Your task to perform on an android device: turn off notifications settings in the gmail app Image 0: 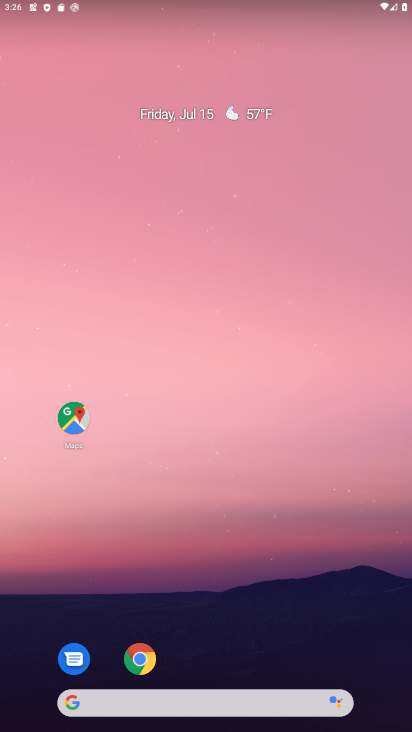
Step 0: drag from (17, 691) to (181, 216)
Your task to perform on an android device: turn off notifications settings in the gmail app Image 1: 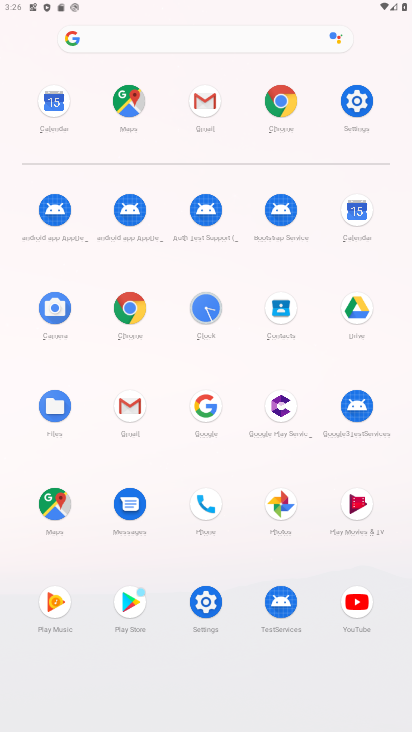
Step 1: click (116, 413)
Your task to perform on an android device: turn off notifications settings in the gmail app Image 2: 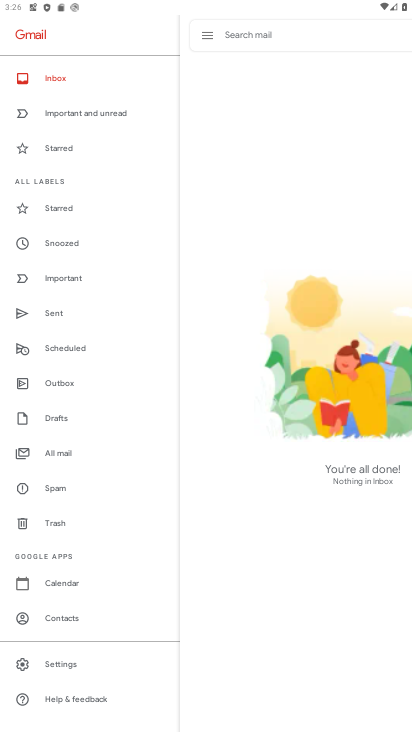
Step 2: click (41, 671)
Your task to perform on an android device: turn off notifications settings in the gmail app Image 3: 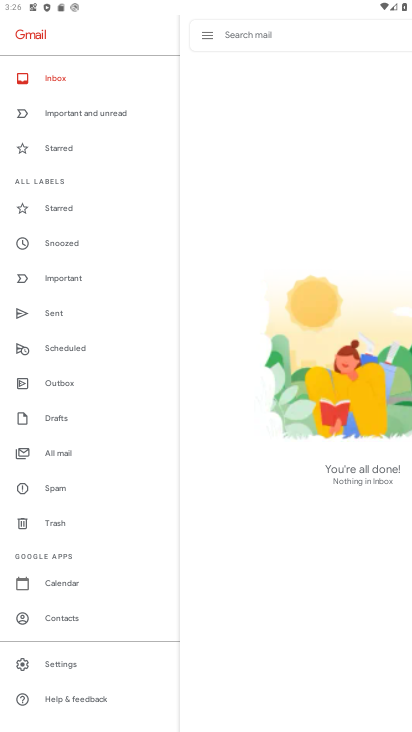
Step 3: click (42, 668)
Your task to perform on an android device: turn off notifications settings in the gmail app Image 4: 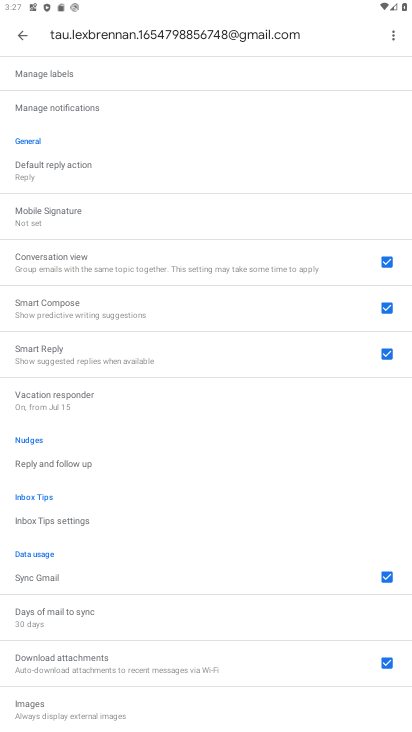
Step 4: click (46, 112)
Your task to perform on an android device: turn off notifications settings in the gmail app Image 5: 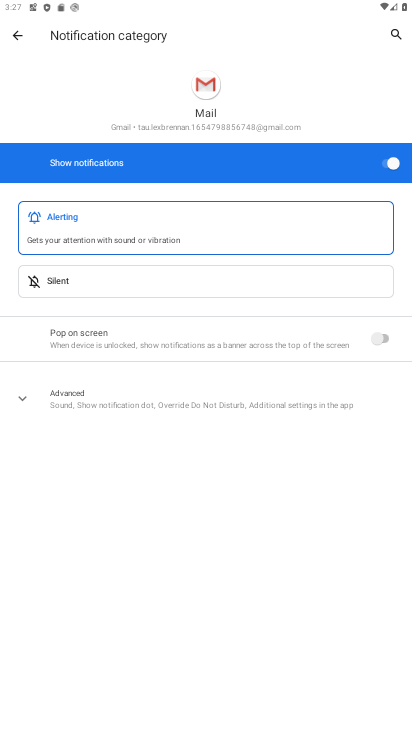
Step 5: click (380, 172)
Your task to perform on an android device: turn off notifications settings in the gmail app Image 6: 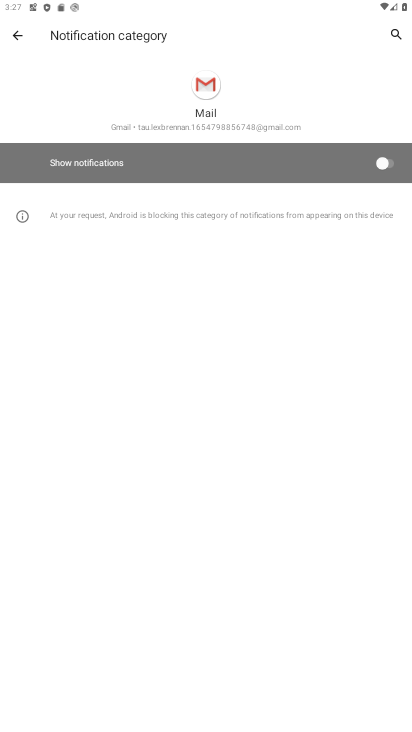
Step 6: task complete